Your task to perform on an android device: find which apps use the phone's location Image 0: 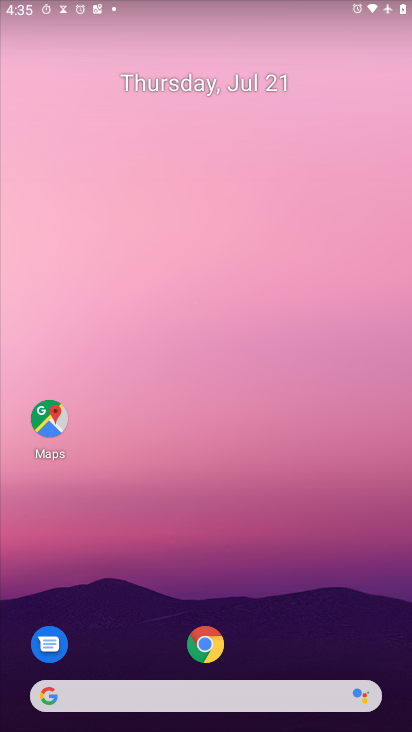
Step 0: drag from (295, 643) to (189, 6)
Your task to perform on an android device: find which apps use the phone's location Image 1: 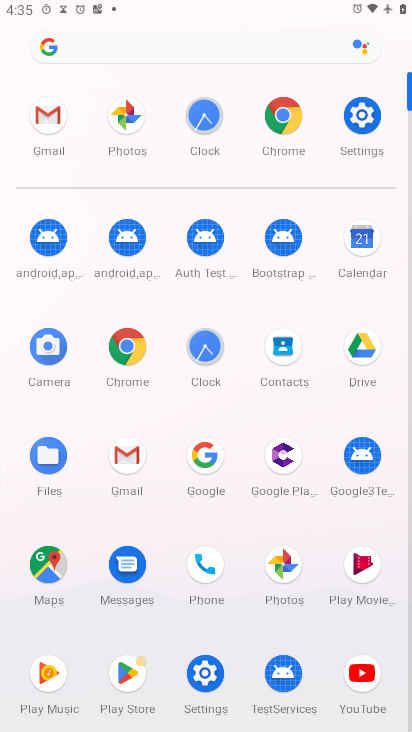
Step 1: click (361, 121)
Your task to perform on an android device: find which apps use the phone's location Image 2: 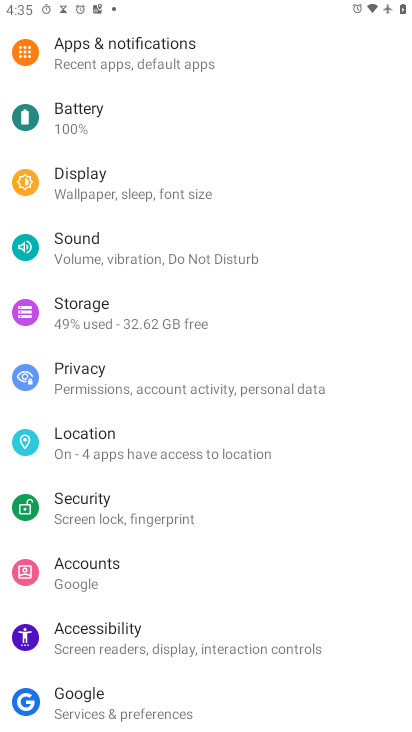
Step 2: click (83, 449)
Your task to perform on an android device: find which apps use the phone's location Image 3: 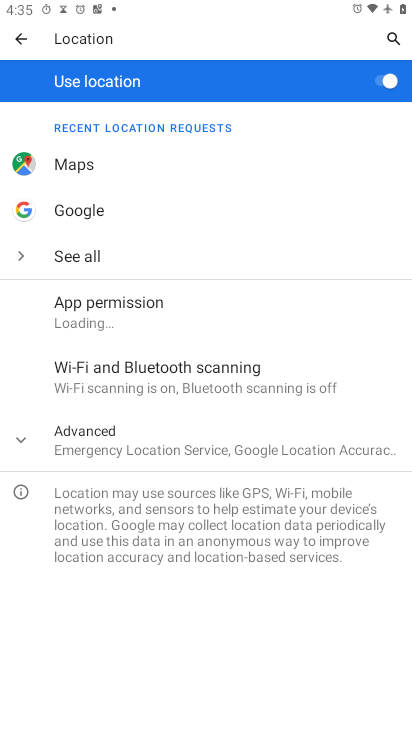
Step 3: click (103, 318)
Your task to perform on an android device: find which apps use the phone's location Image 4: 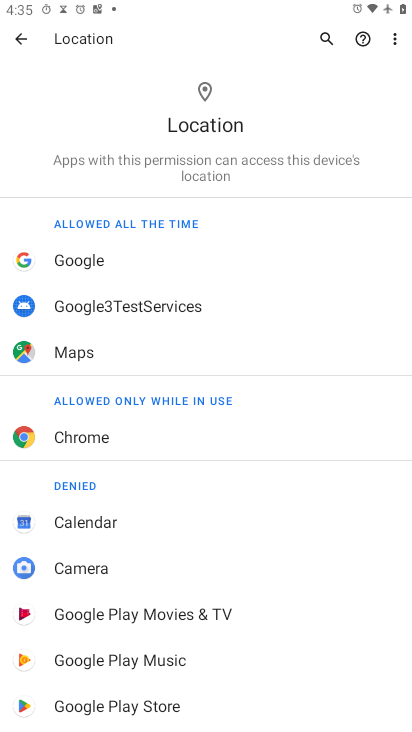
Step 4: task complete